Your task to perform on an android device: turn on airplane mode Image 0: 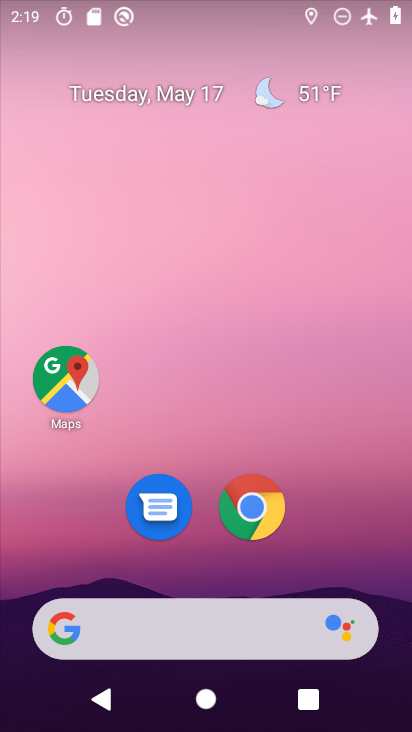
Step 0: drag from (218, 561) to (303, 110)
Your task to perform on an android device: turn on airplane mode Image 1: 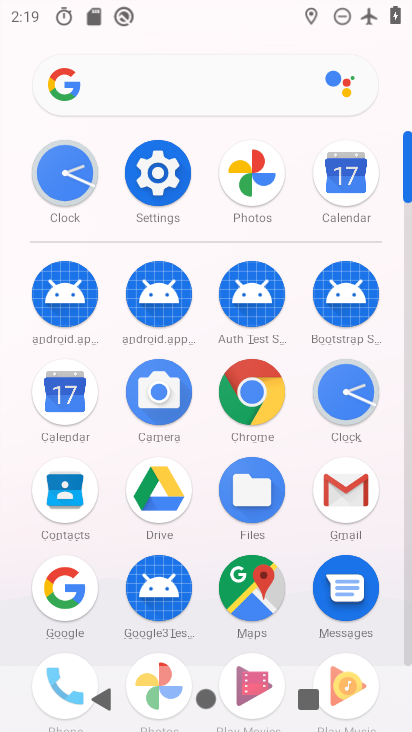
Step 1: click (154, 184)
Your task to perform on an android device: turn on airplane mode Image 2: 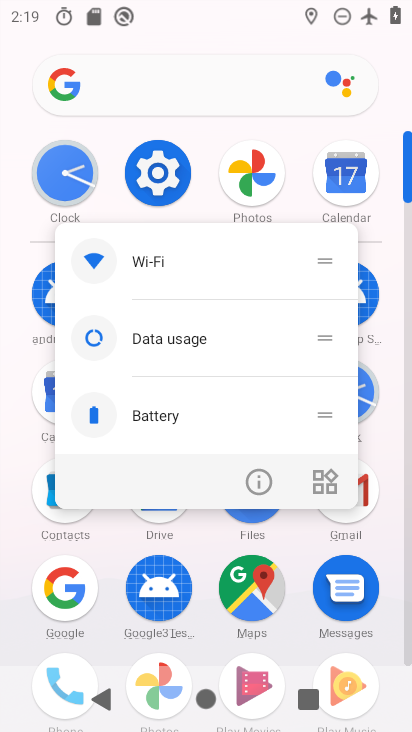
Step 2: click (206, 130)
Your task to perform on an android device: turn on airplane mode Image 3: 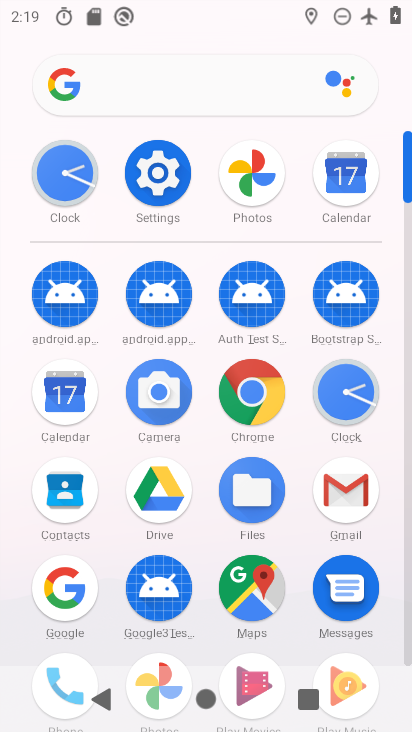
Step 3: click (159, 173)
Your task to perform on an android device: turn on airplane mode Image 4: 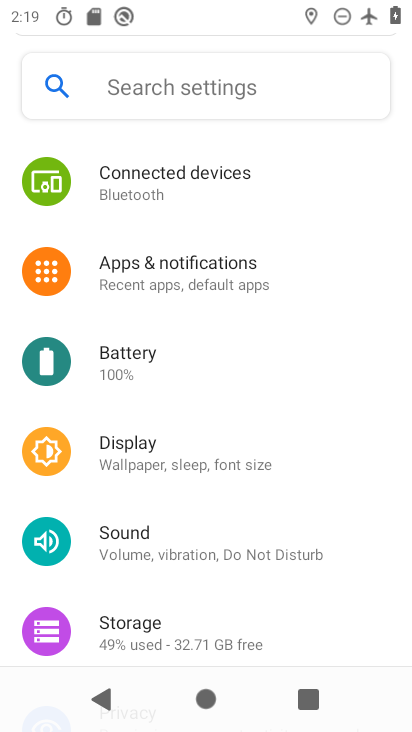
Step 4: drag from (175, 186) to (228, 567)
Your task to perform on an android device: turn on airplane mode Image 5: 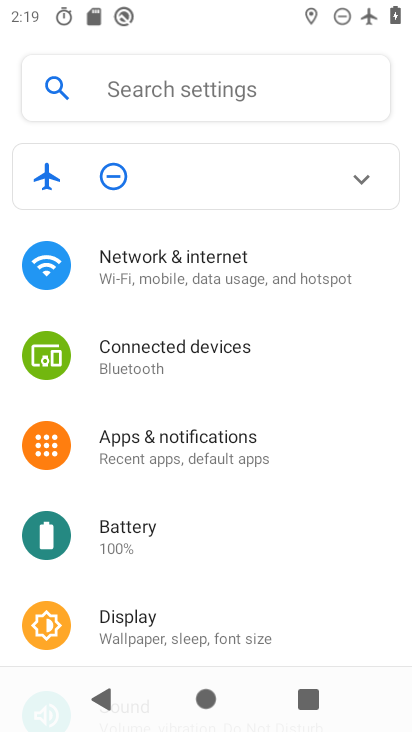
Step 5: click (148, 270)
Your task to perform on an android device: turn on airplane mode Image 6: 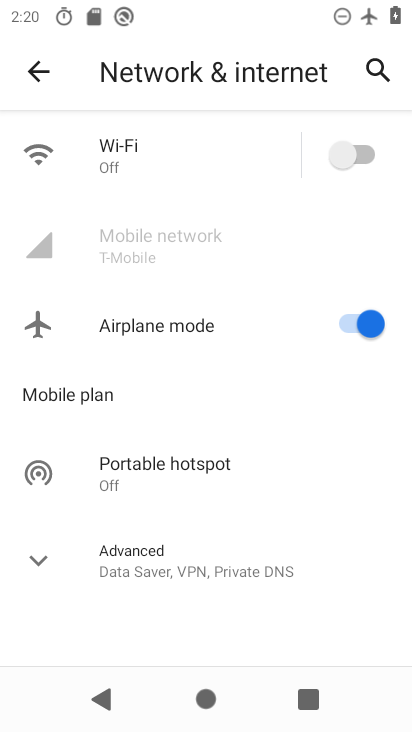
Step 6: task complete